Your task to perform on an android device: Open Youtube and go to "Your channel" Image 0: 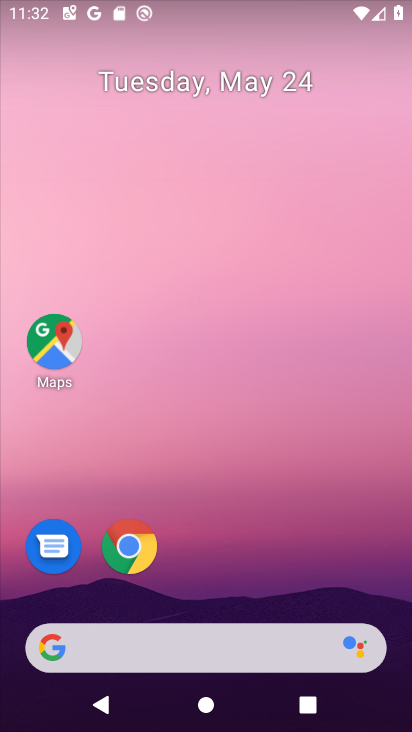
Step 0: drag from (203, 579) to (250, 285)
Your task to perform on an android device: Open Youtube and go to "Your channel" Image 1: 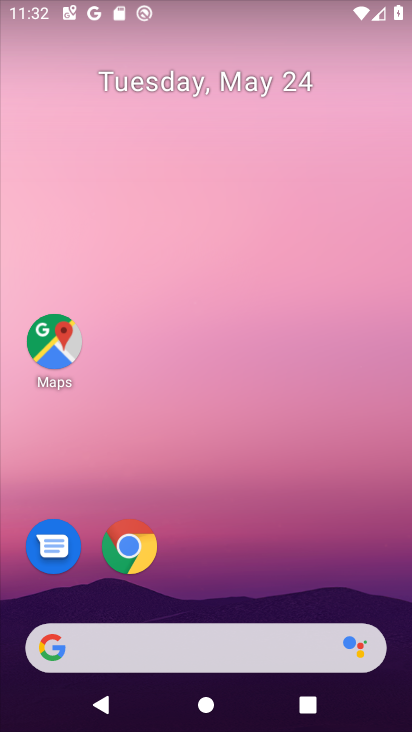
Step 1: drag from (245, 597) to (297, 13)
Your task to perform on an android device: Open Youtube and go to "Your channel" Image 2: 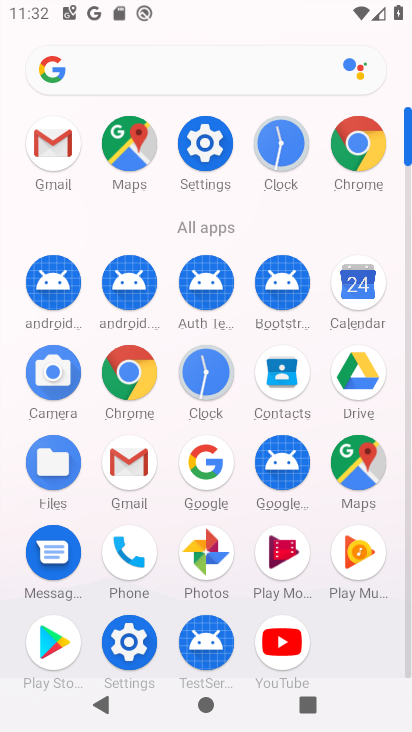
Step 2: click (289, 635)
Your task to perform on an android device: Open Youtube and go to "Your channel" Image 3: 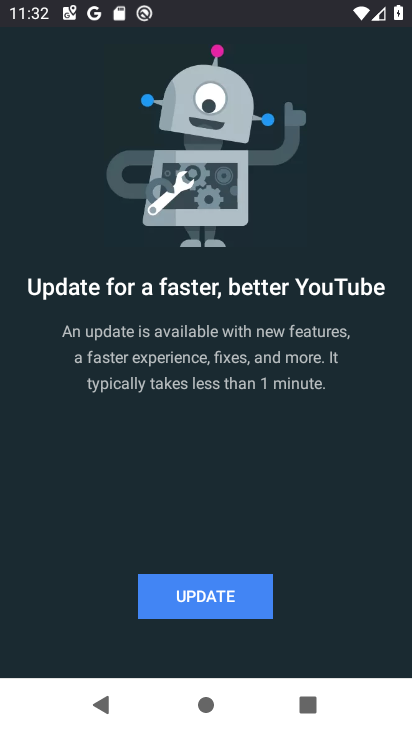
Step 3: click (162, 581)
Your task to perform on an android device: Open Youtube and go to "Your channel" Image 4: 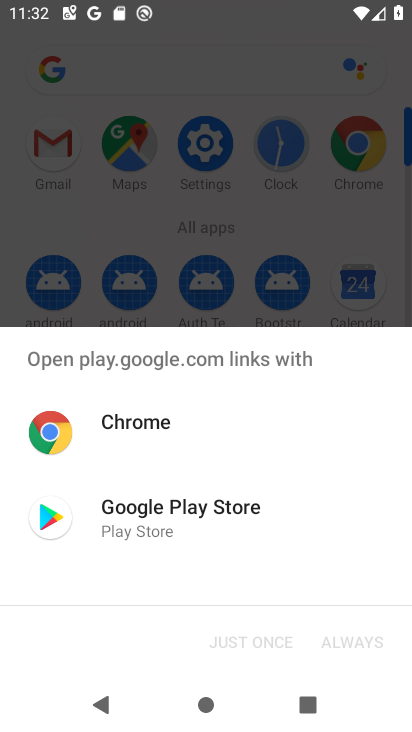
Step 4: drag from (174, 514) to (234, 514)
Your task to perform on an android device: Open Youtube and go to "Your channel" Image 5: 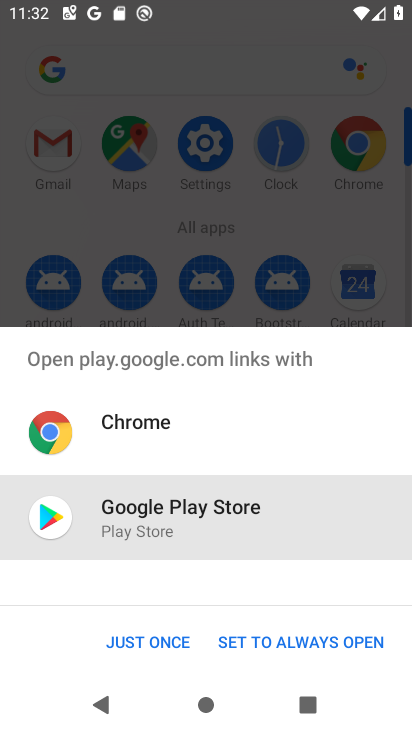
Step 5: click (137, 649)
Your task to perform on an android device: Open Youtube and go to "Your channel" Image 6: 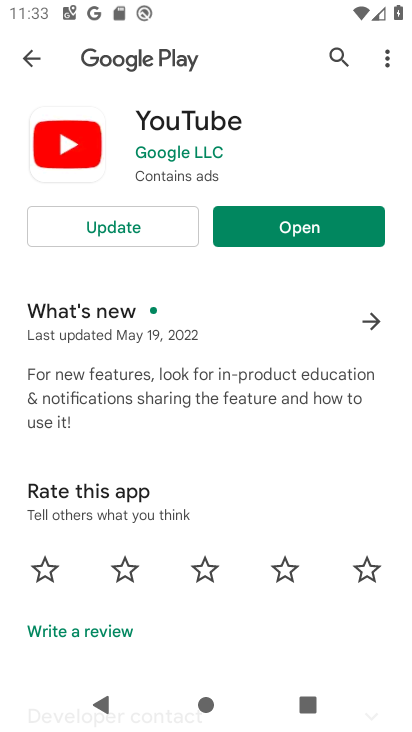
Step 6: click (119, 214)
Your task to perform on an android device: Open Youtube and go to "Your channel" Image 7: 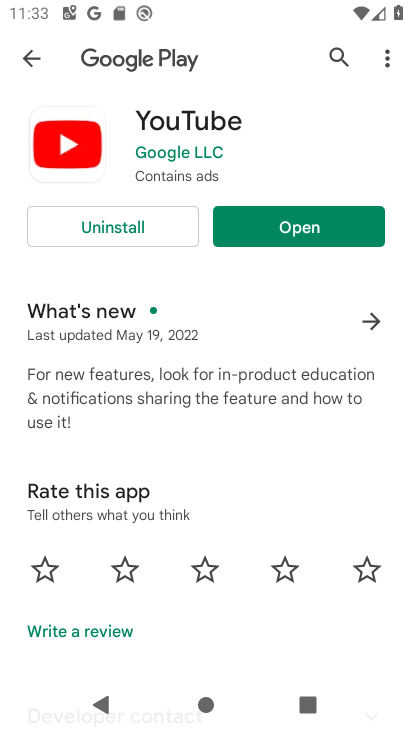
Step 7: click (314, 236)
Your task to perform on an android device: Open Youtube and go to "Your channel" Image 8: 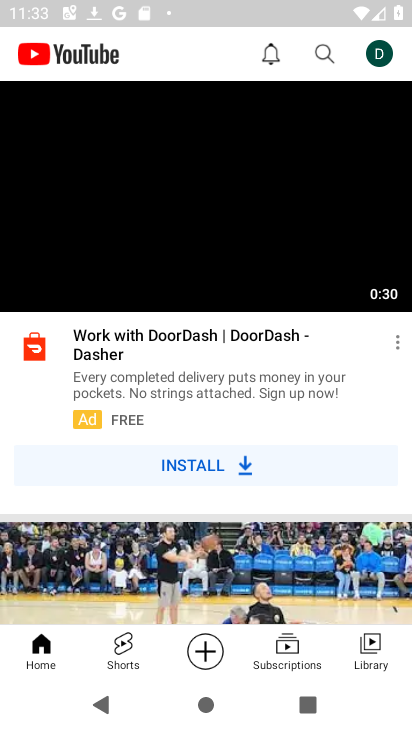
Step 8: click (374, 59)
Your task to perform on an android device: Open Youtube and go to "Your channel" Image 9: 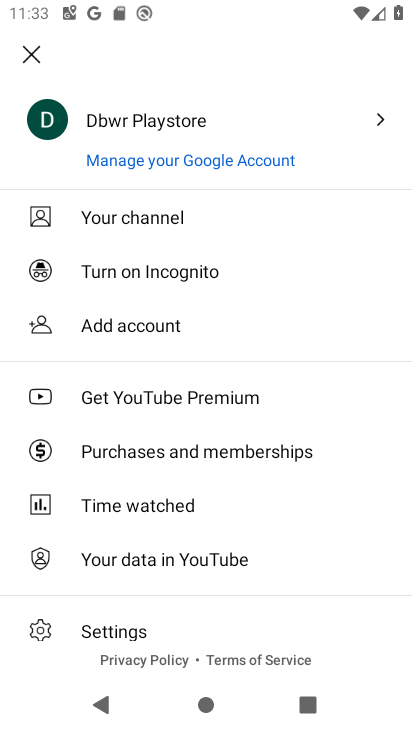
Step 9: click (154, 219)
Your task to perform on an android device: Open Youtube and go to "Your channel" Image 10: 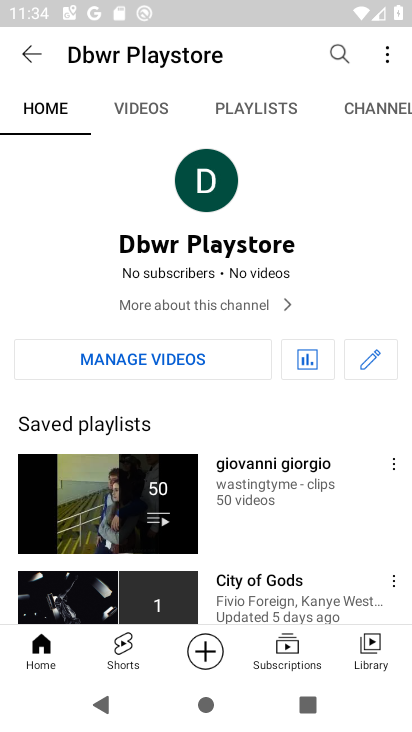
Step 10: task complete